Your task to perform on an android device: toggle airplane mode Image 0: 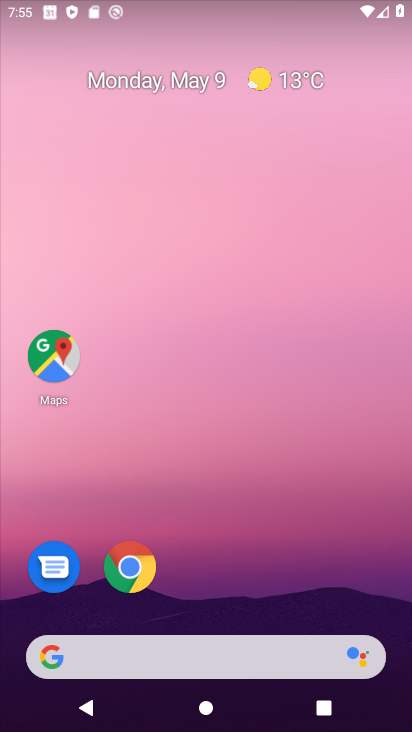
Step 0: drag from (294, 527) to (274, 16)
Your task to perform on an android device: toggle airplane mode Image 1: 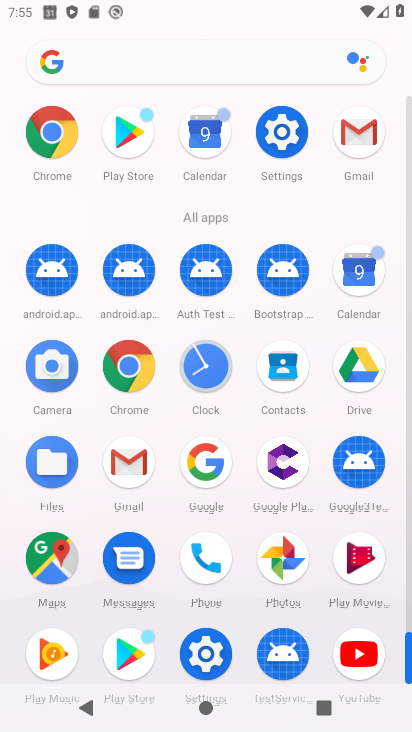
Step 1: click (272, 129)
Your task to perform on an android device: toggle airplane mode Image 2: 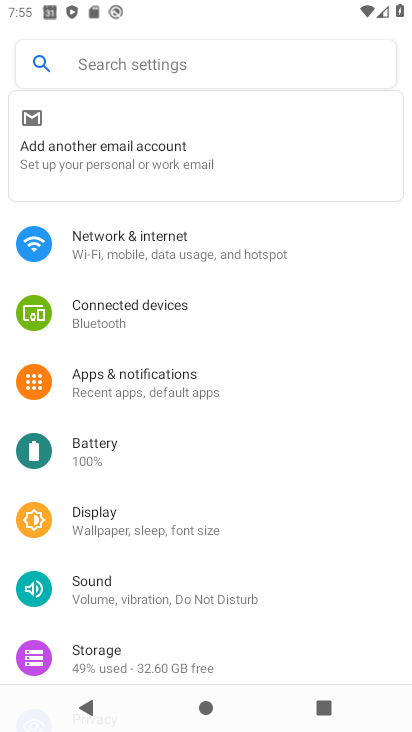
Step 2: click (203, 235)
Your task to perform on an android device: toggle airplane mode Image 3: 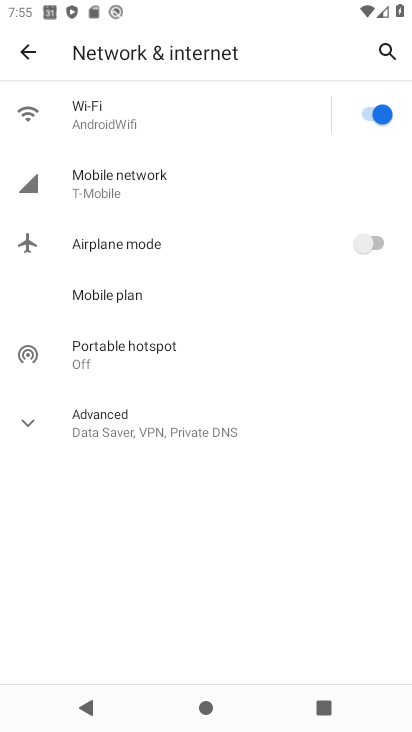
Step 3: click (372, 231)
Your task to perform on an android device: toggle airplane mode Image 4: 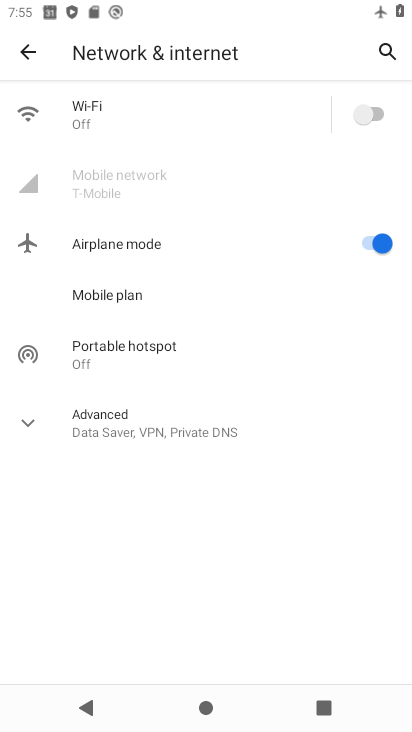
Step 4: task complete